Your task to perform on an android device: Show me the alarms in the clock app Image 0: 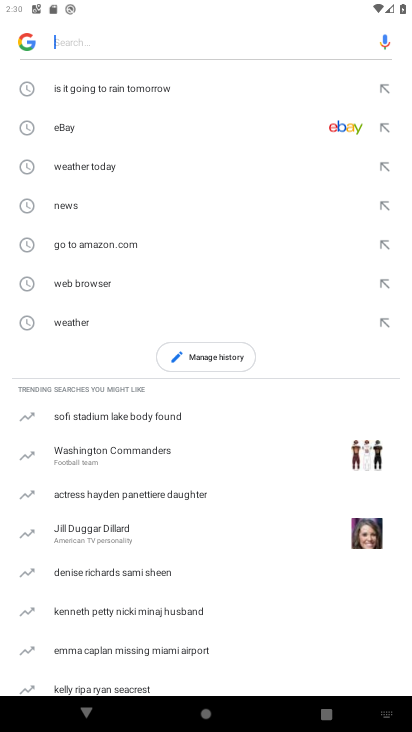
Step 0: press home button
Your task to perform on an android device: Show me the alarms in the clock app Image 1: 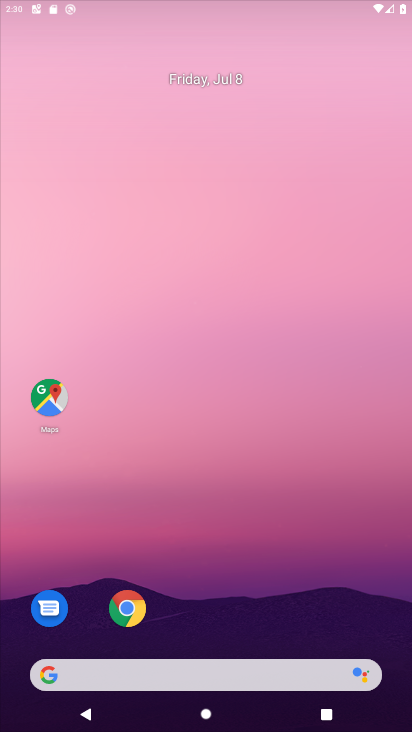
Step 1: drag from (226, 612) to (261, 208)
Your task to perform on an android device: Show me the alarms in the clock app Image 2: 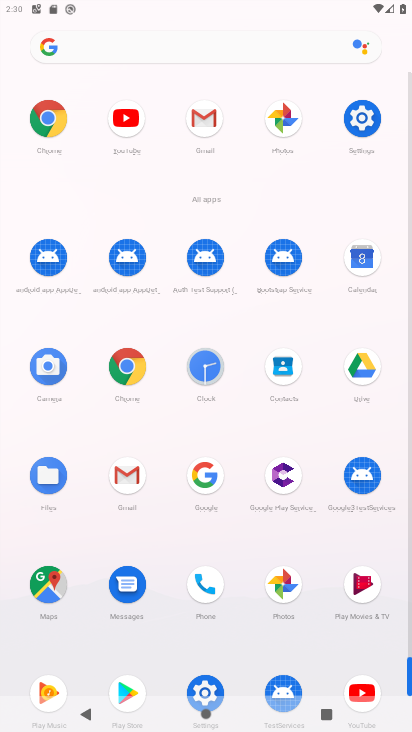
Step 2: click (218, 358)
Your task to perform on an android device: Show me the alarms in the clock app Image 3: 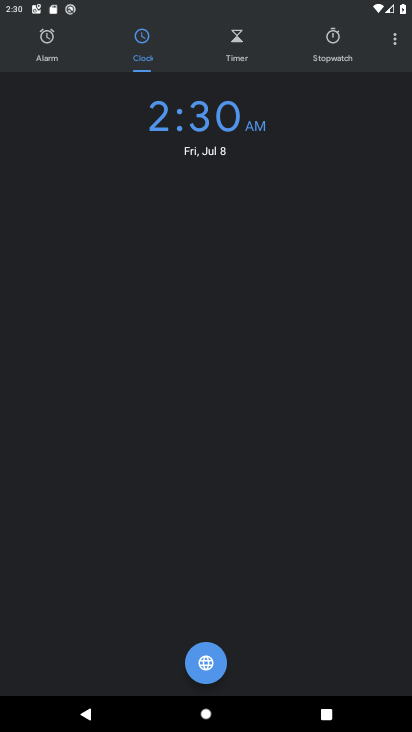
Step 3: click (52, 25)
Your task to perform on an android device: Show me the alarms in the clock app Image 4: 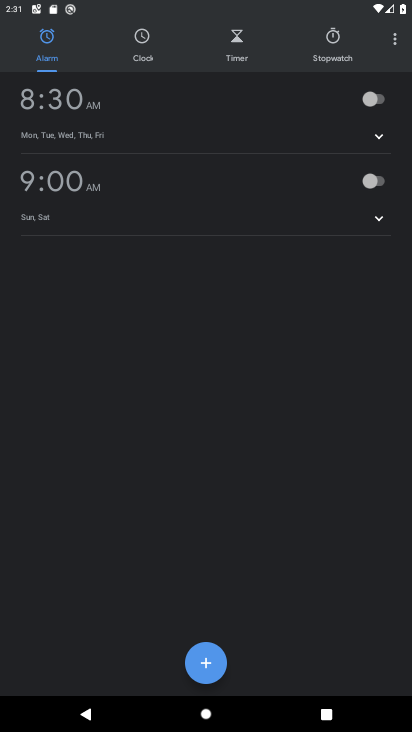
Step 4: task complete